Your task to perform on an android device: Check the weather Image 0: 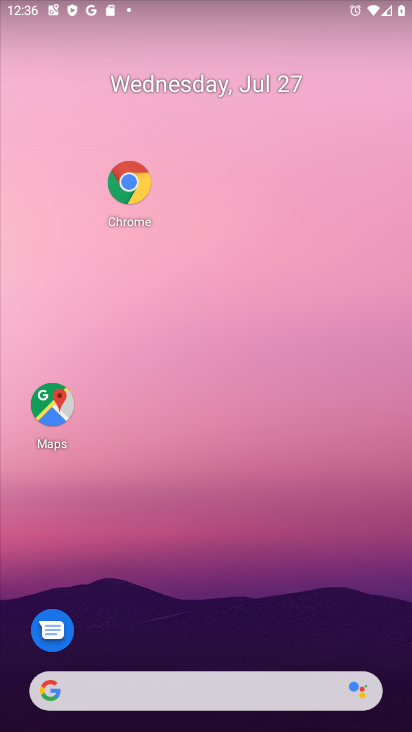
Step 0: click (197, 684)
Your task to perform on an android device: Check the weather Image 1: 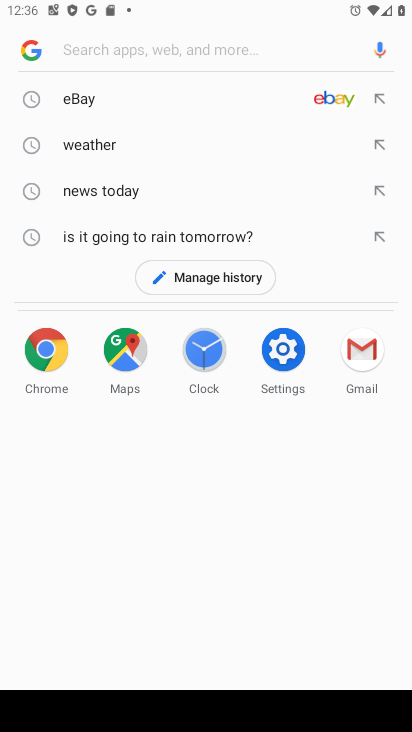
Step 1: click (103, 143)
Your task to perform on an android device: Check the weather Image 2: 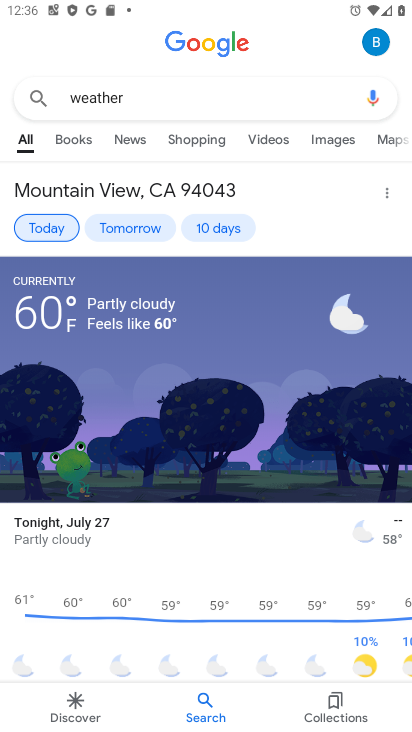
Step 2: task complete